Your task to perform on an android device: Open Google Image 0: 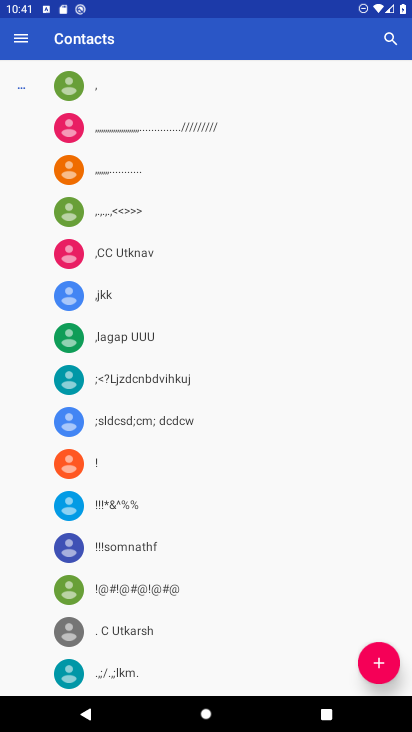
Step 0: press home button
Your task to perform on an android device: Open Google Image 1: 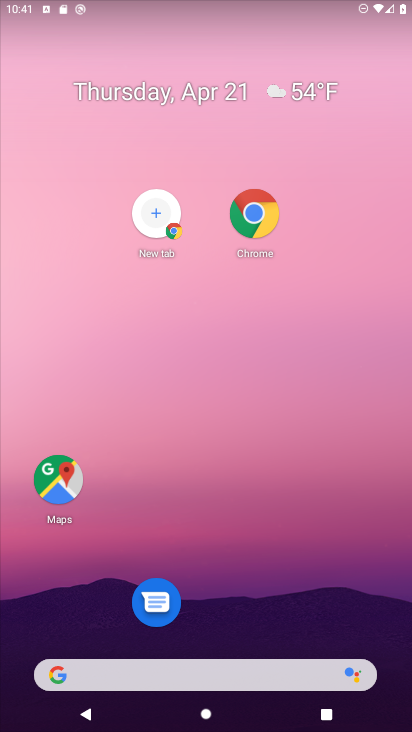
Step 1: click (272, 665)
Your task to perform on an android device: Open Google Image 2: 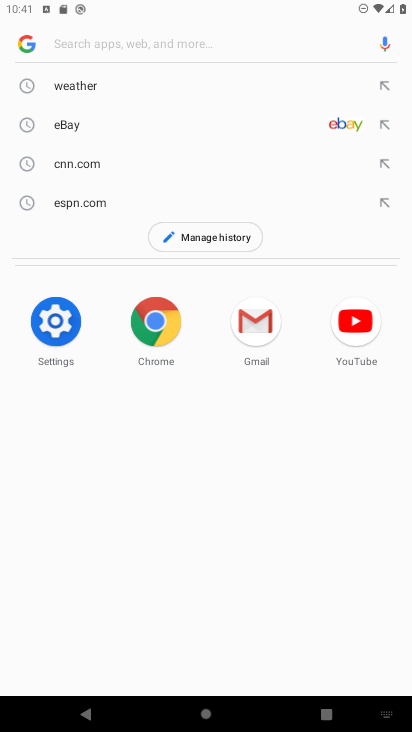
Step 2: task complete